Your task to perform on an android device: open a new tab in the chrome app Image 0: 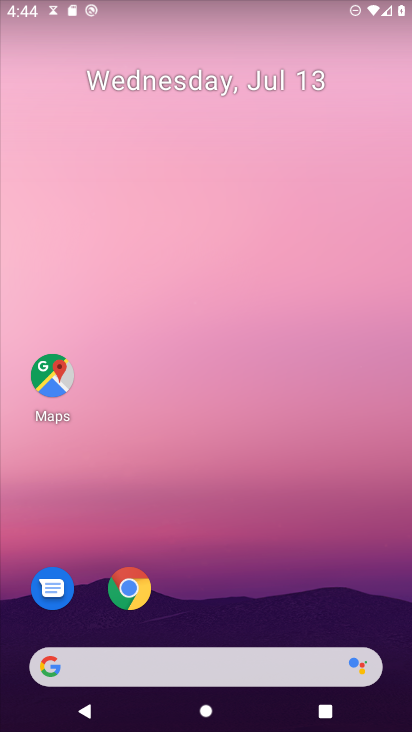
Step 0: drag from (281, 555) to (276, 182)
Your task to perform on an android device: open a new tab in the chrome app Image 1: 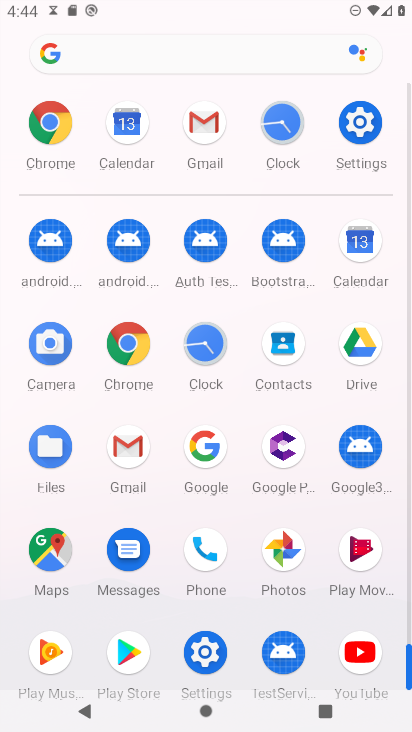
Step 1: click (122, 338)
Your task to perform on an android device: open a new tab in the chrome app Image 2: 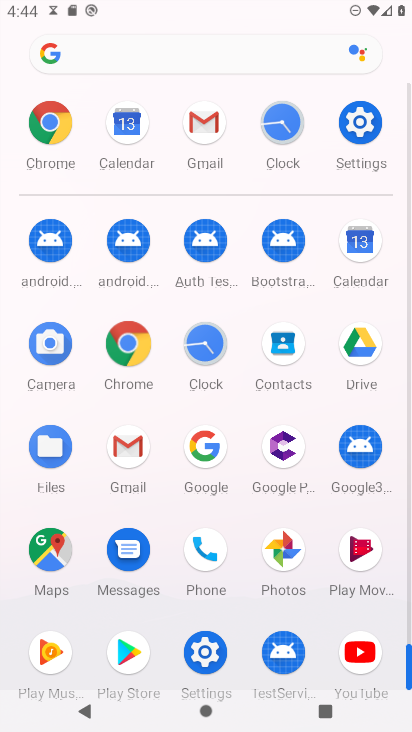
Step 2: click (125, 339)
Your task to perform on an android device: open a new tab in the chrome app Image 3: 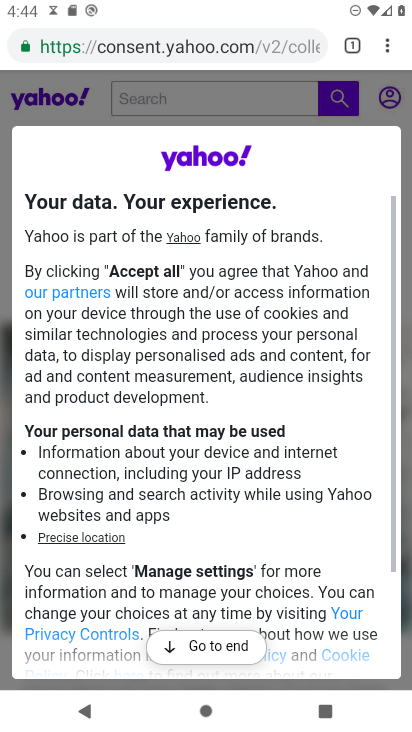
Step 3: click (358, 116)
Your task to perform on an android device: open a new tab in the chrome app Image 4: 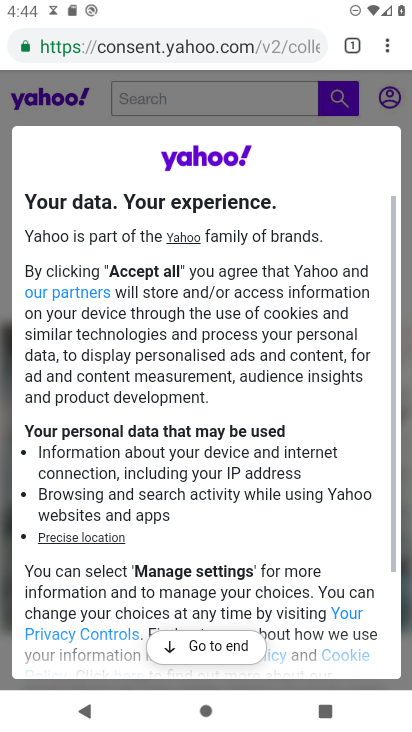
Step 4: click (353, 94)
Your task to perform on an android device: open a new tab in the chrome app Image 5: 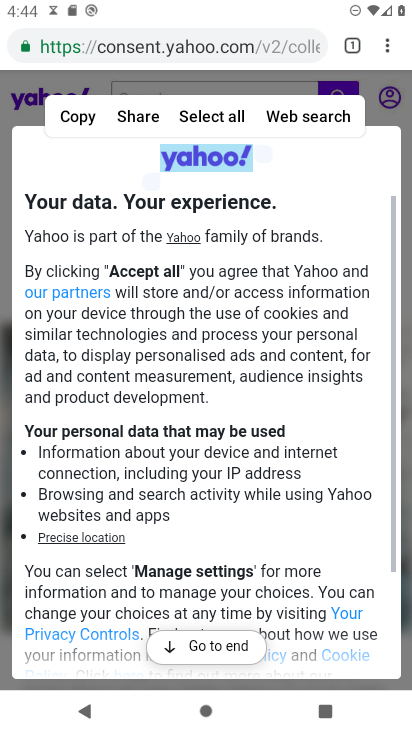
Step 5: drag from (386, 44) to (210, 91)
Your task to perform on an android device: open a new tab in the chrome app Image 6: 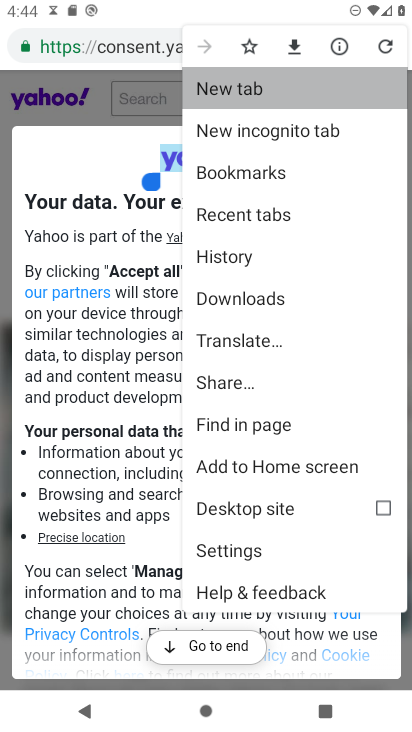
Step 6: click (211, 89)
Your task to perform on an android device: open a new tab in the chrome app Image 7: 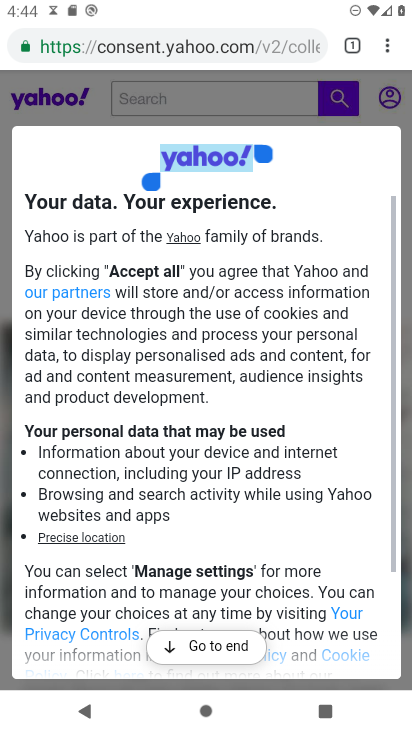
Step 7: click (215, 85)
Your task to perform on an android device: open a new tab in the chrome app Image 8: 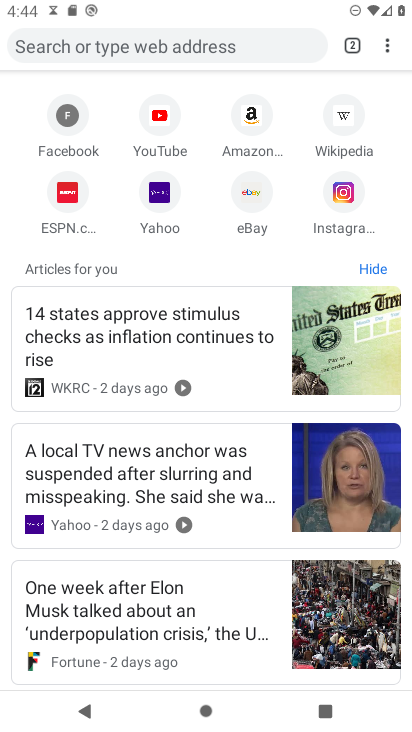
Step 8: task complete